Your task to perform on an android device: Go to Google maps Image 0: 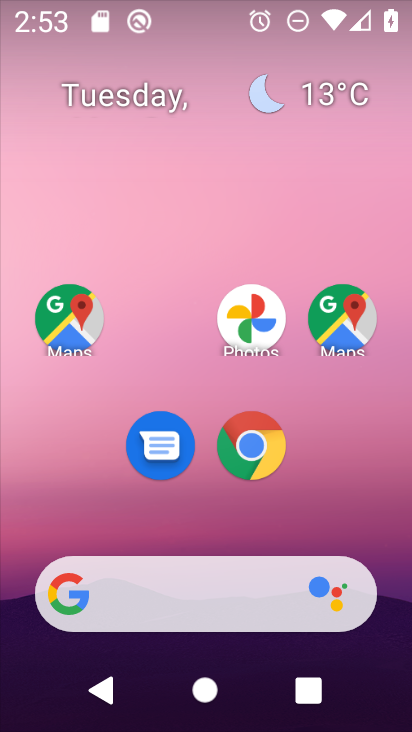
Step 0: drag from (395, 543) to (386, 201)
Your task to perform on an android device: Go to Google maps Image 1: 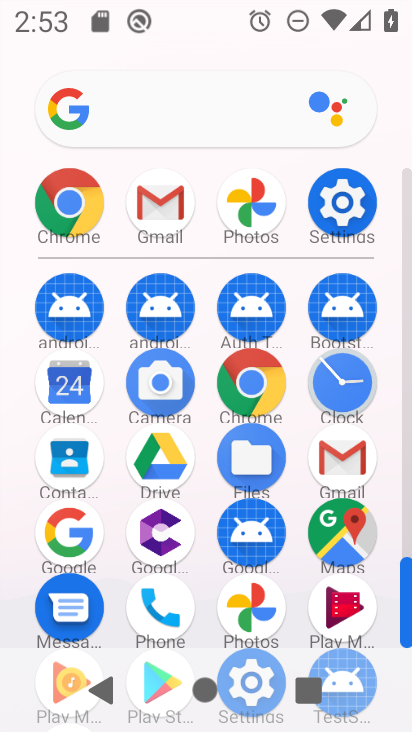
Step 1: click (360, 539)
Your task to perform on an android device: Go to Google maps Image 2: 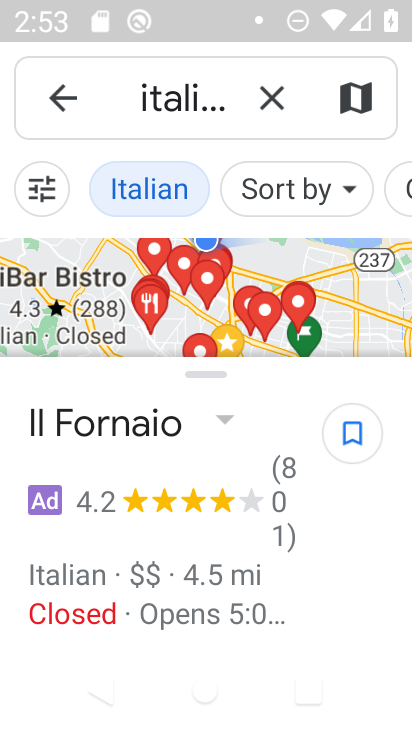
Step 2: task complete